Your task to perform on an android device: turn on bluetooth scan Image 0: 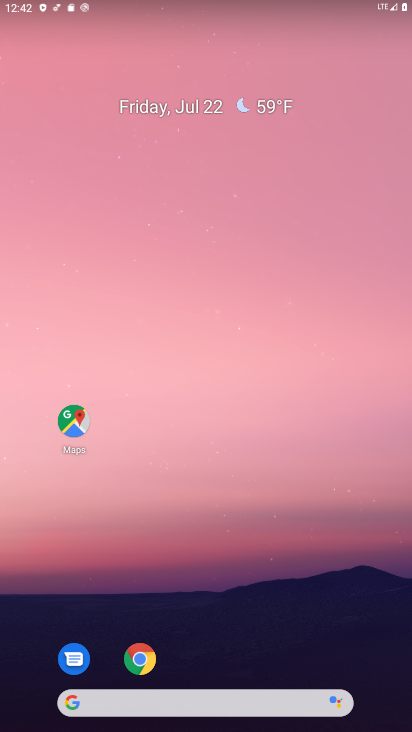
Step 0: drag from (230, 635) to (239, 152)
Your task to perform on an android device: turn on bluetooth scan Image 1: 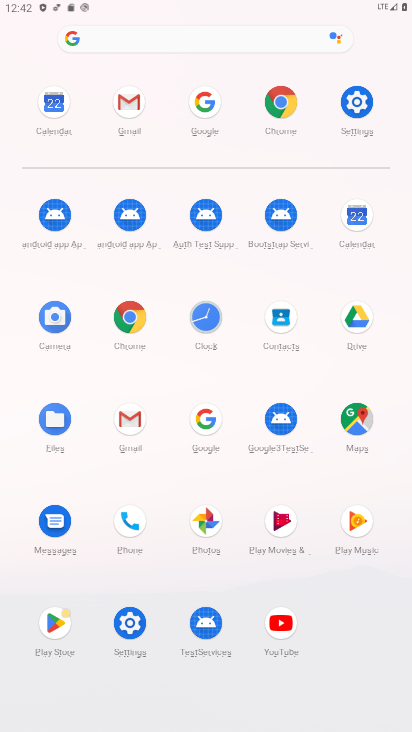
Step 1: click (341, 98)
Your task to perform on an android device: turn on bluetooth scan Image 2: 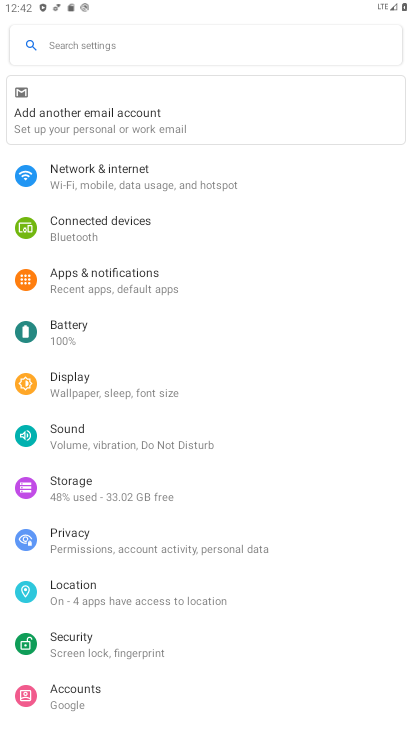
Step 2: click (123, 596)
Your task to perform on an android device: turn on bluetooth scan Image 3: 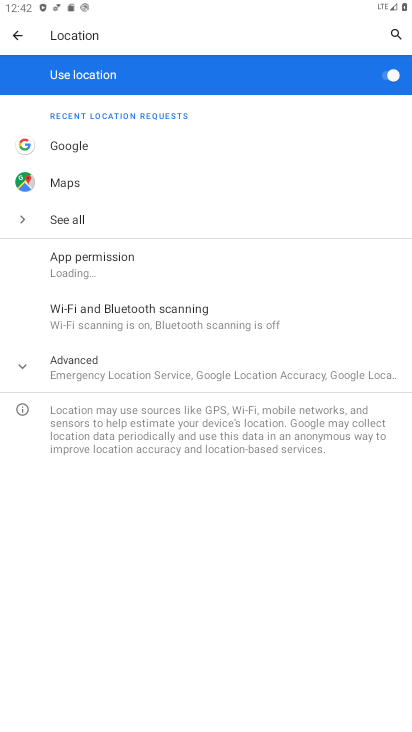
Step 3: click (209, 319)
Your task to perform on an android device: turn on bluetooth scan Image 4: 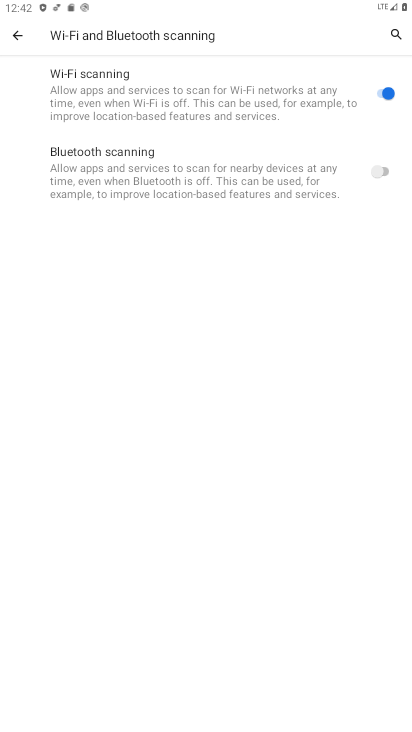
Step 4: click (384, 176)
Your task to perform on an android device: turn on bluetooth scan Image 5: 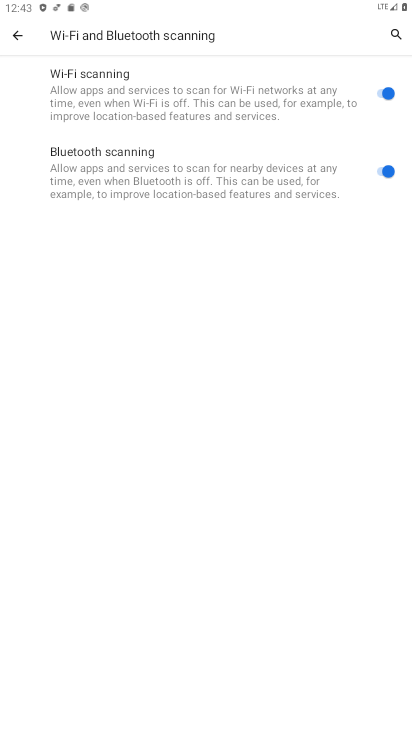
Step 5: task complete